Your task to perform on an android device: all mails in gmail Image 0: 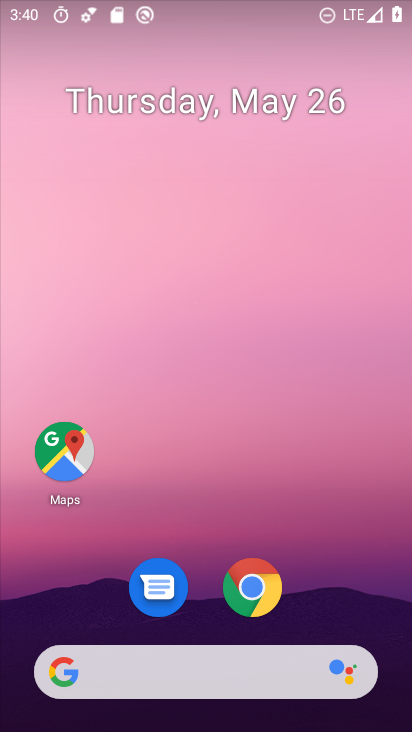
Step 0: drag from (353, 584) to (328, 205)
Your task to perform on an android device: all mails in gmail Image 1: 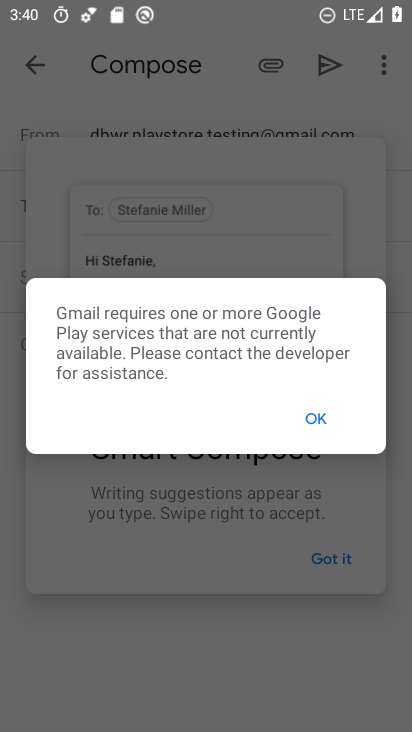
Step 1: press home button
Your task to perform on an android device: all mails in gmail Image 2: 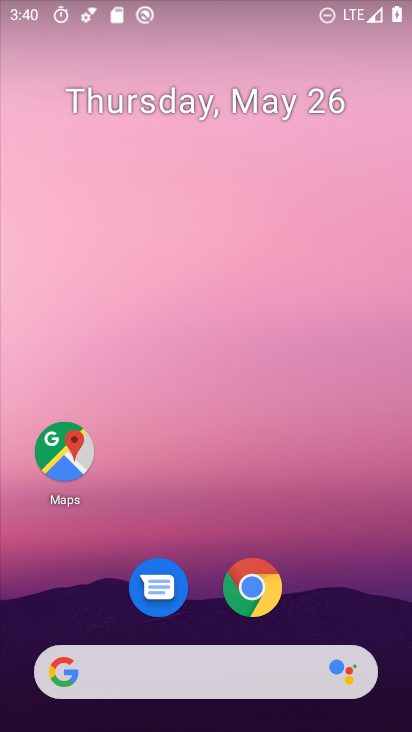
Step 2: drag from (308, 504) to (296, 85)
Your task to perform on an android device: all mails in gmail Image 3: 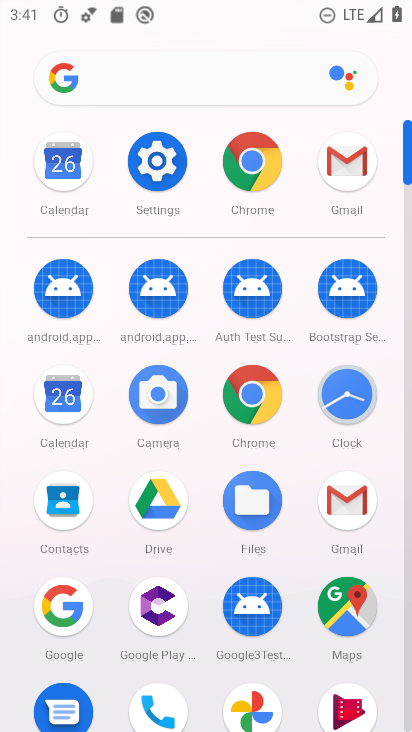
Step 3: click (335, 174)
Your task to perform on an android device: all mails in gmail Image 4: 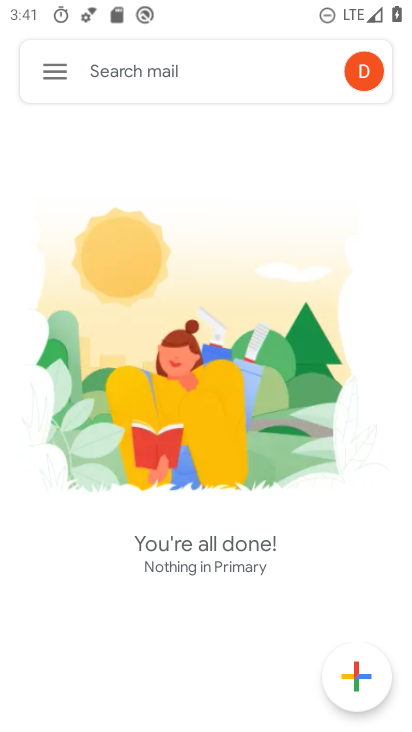
Step 4: click (53, 72)
Your task to perform on an android device: all mails in gmail Image 5: 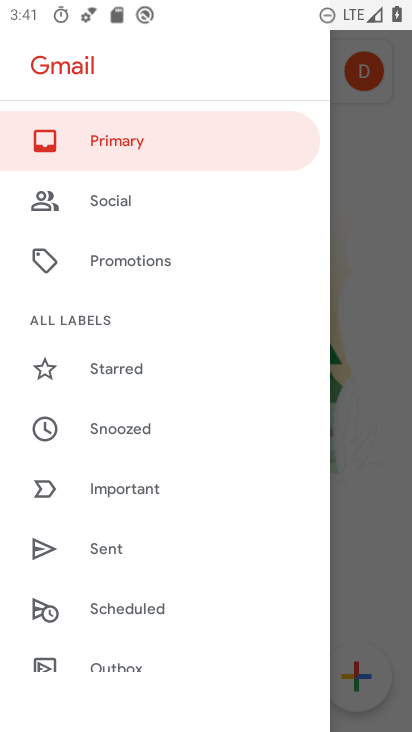
Step 5: drag from (123, 576) to (168, 255)
Your task to perform on an android device: all mails in gmail Image 6: 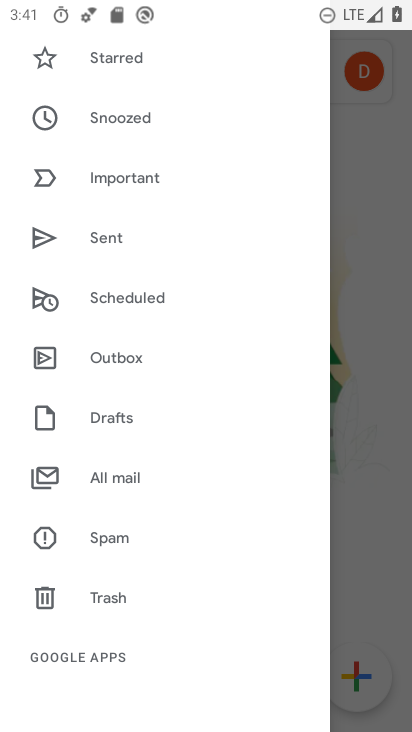
Step 6: click (114, 483)
Your task to perform on an android device: all mails in gmail Image 7: 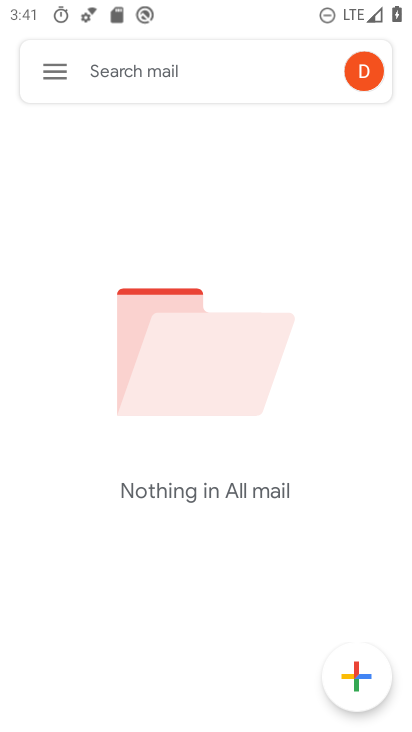
Step 7: task complete